Your task to perform on an android device: Go to Yahoo.com Image 0: 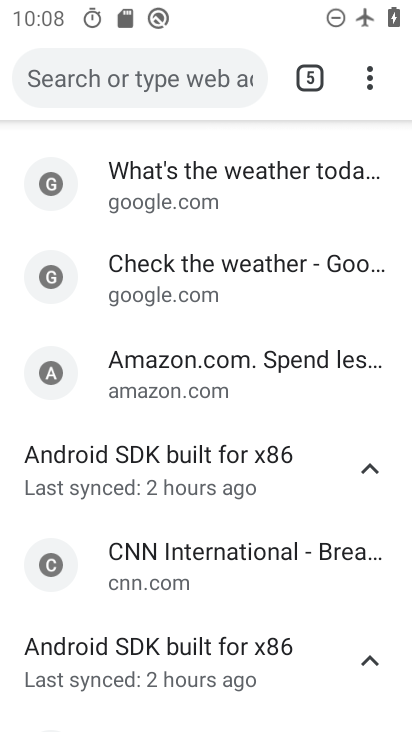
Step 0: press home button
Your task to perform on an android device: Go to Yahoo.com Image 1: 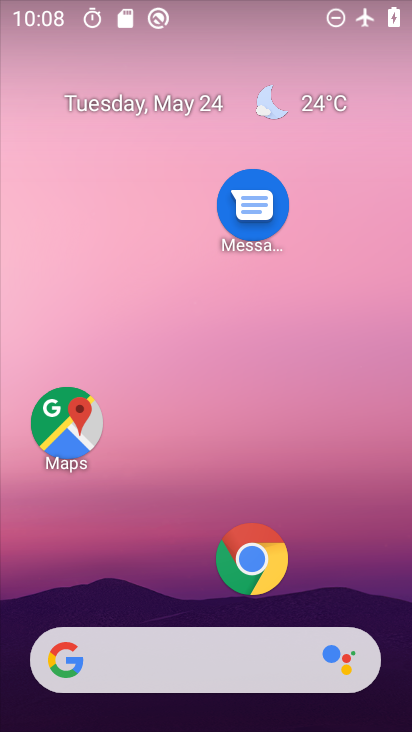
Step 1: click (235, 577)
Your task to perform on an android device: Go to Yahoo.com Image 2: 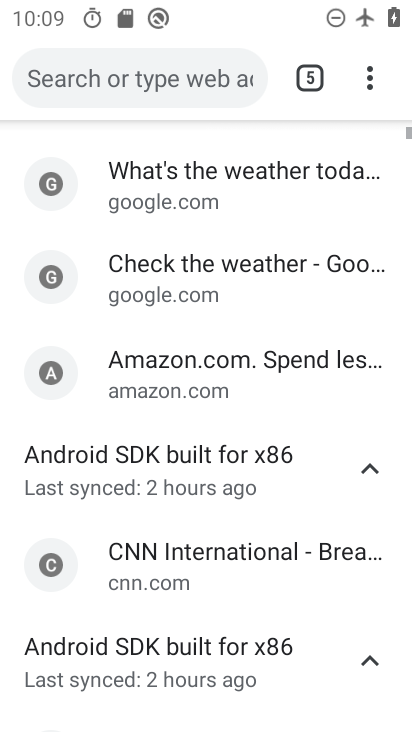
Step 2: click (315, 79)
Your task to perform on an android device: Go to Yahoo.com Image 3: 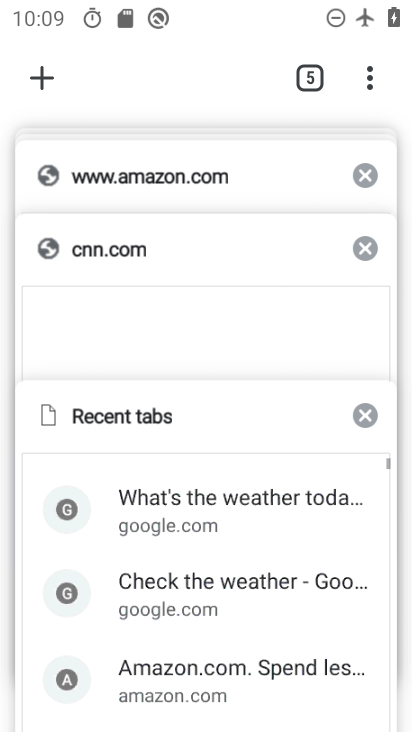
Step 3: drag from (148, 195) to (150, 554)
Your task to perform on an android device: Go to Yahoo.com Image 4: 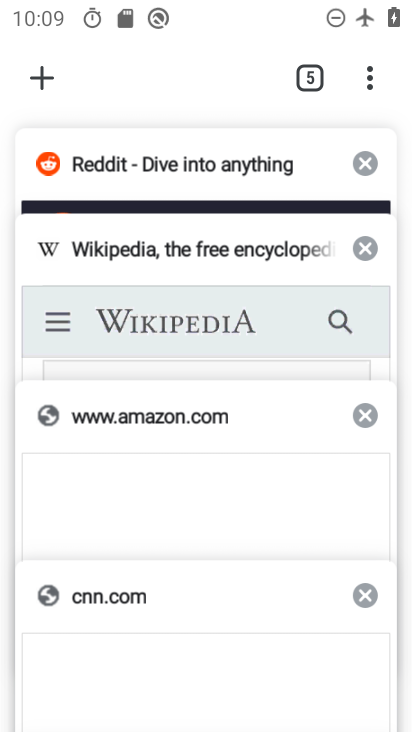
Step 4: drag from (173, 238) to (176, 554)
Your task to perform on an android device: Go to Yahoo.com Image 5: 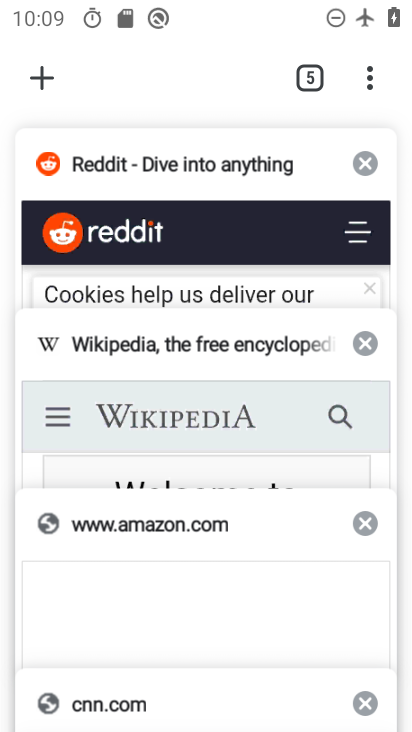
Step 5: drag from (192, 206) to (192, 529)
Your task to perform on an android device: Go to Yahoo.com Image 6: 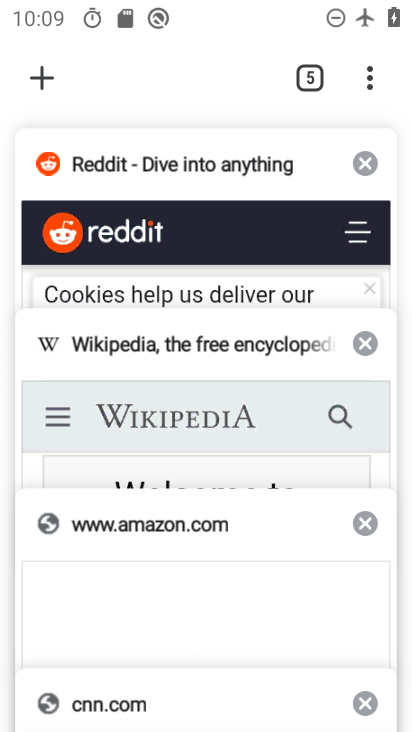
Step 6: click (39, 77)
Your task to perform on an android device: Go to Yahoo.com Image 7: 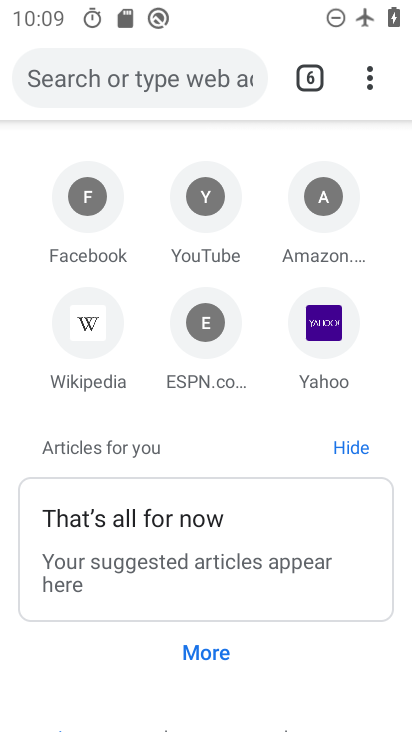
Step 7: click (320, 321)
Your task to perform on an android device: Go to Yahoo.com Image 8: 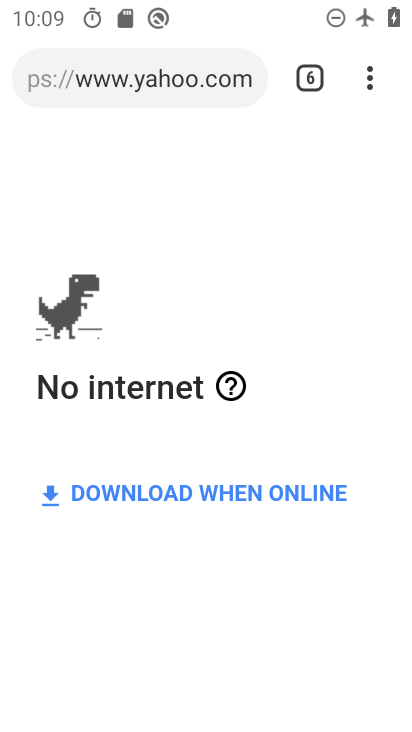
Step 8: task complete